Your task to perform on an android device: clear all cookies in the chrome app Image 0: 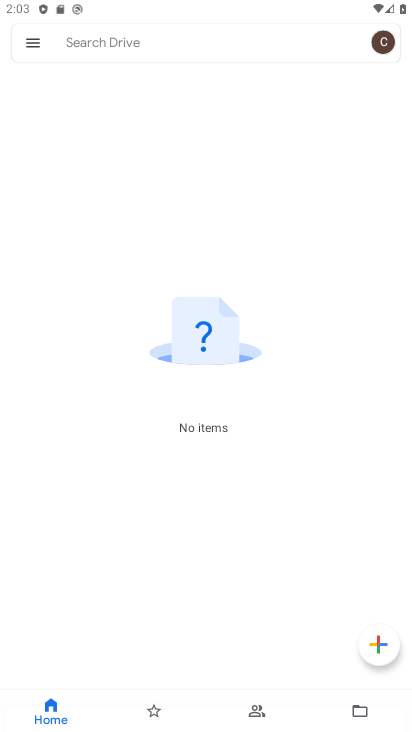
Step 0: press back button
Your task to perform on an android device: clear all cookies in the chrome app Image 1: 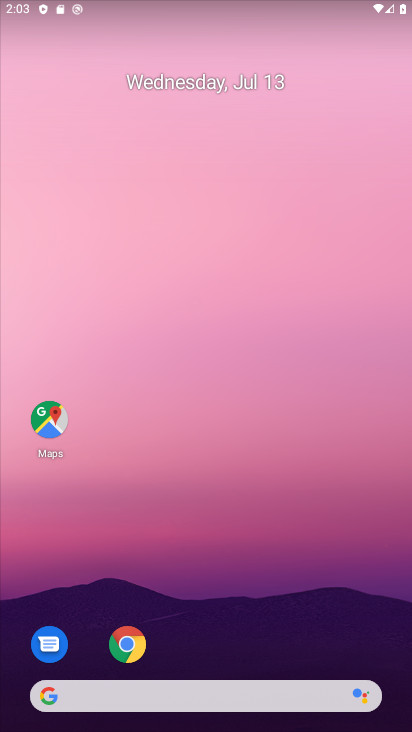
Step 1: click (141, 640)
Your task to perform on an android device: clear all cookies in the chrome app Image 2: 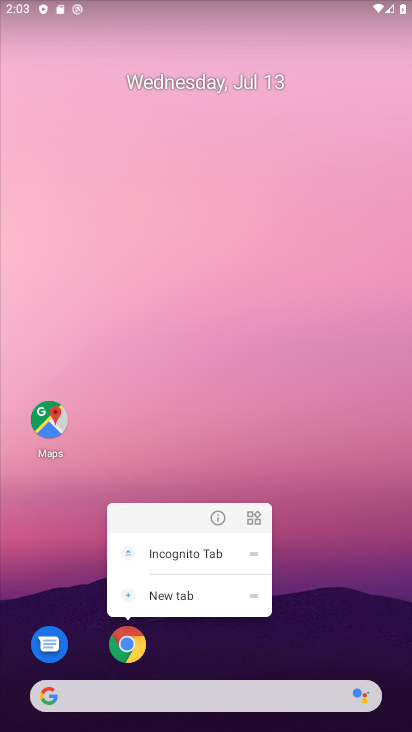
Step 2: click (125, 645)
Your task to perform on an android device: clear all cookies in the chrome app Image 3: 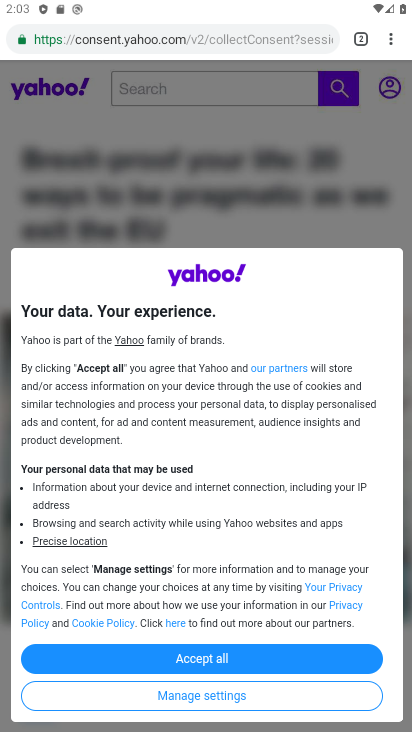
Step 3: drag from (393, 37) to (266, 220)
Your task to perform on an android device: clear all cookies in the chrome app Image 4: 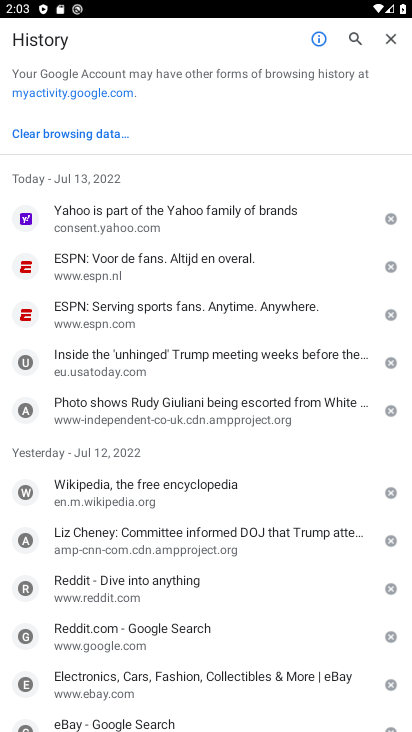
Step 4: click (42, 129)
Your task to perform on an android device: clear all cookies in the chrome app Image 5: 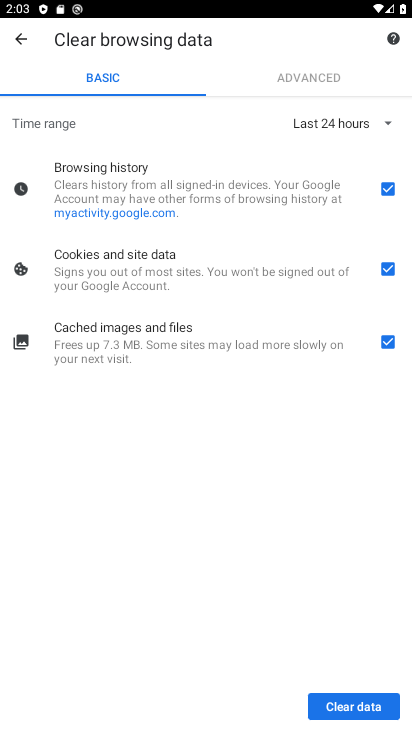
Step 5: click (334, 703)
Your task to perform on an android device: clear all cookies in the chrome app Image 6: 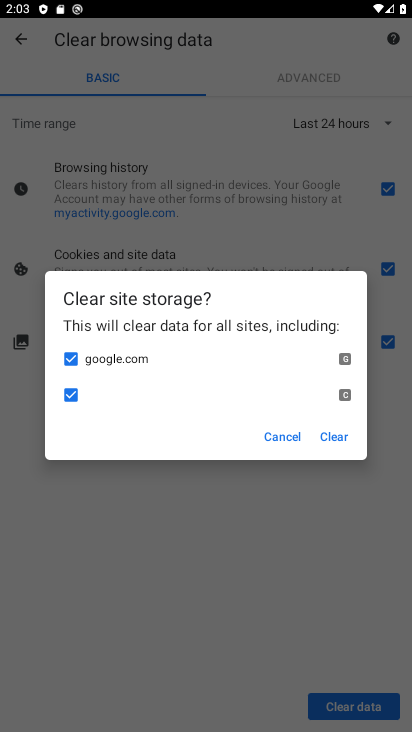
Step 6: click (334, 437)
Your task to perform on an android device: clear all cookies in the chrome app Image 7: 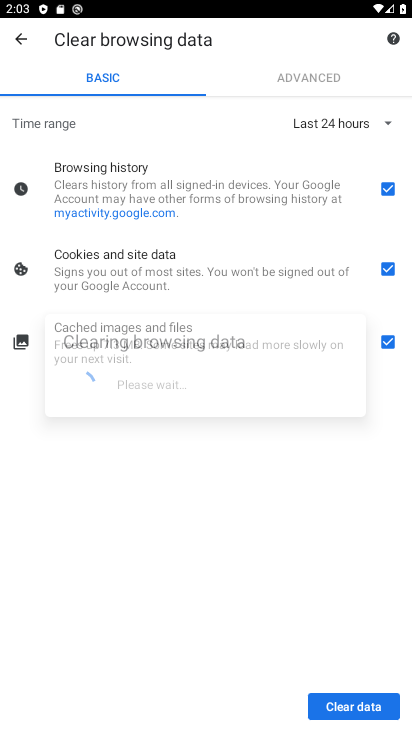
Step 7: task complete